Your task to perform on an android device: install app "Google Play services" Image 0: 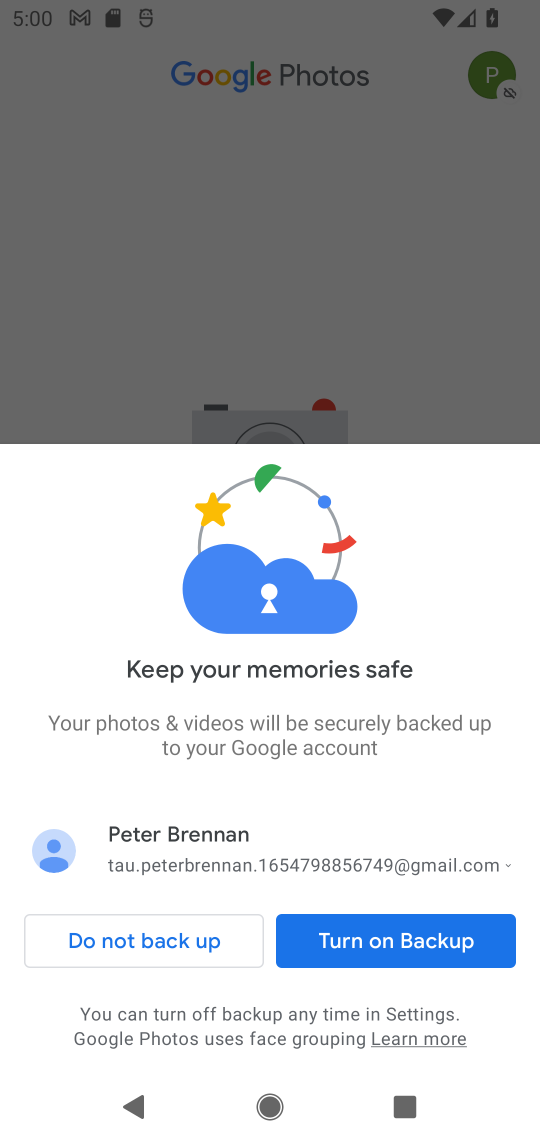
Step 0: press home button
Your task to perform on an android device: install app "Google Play services" Image 1: 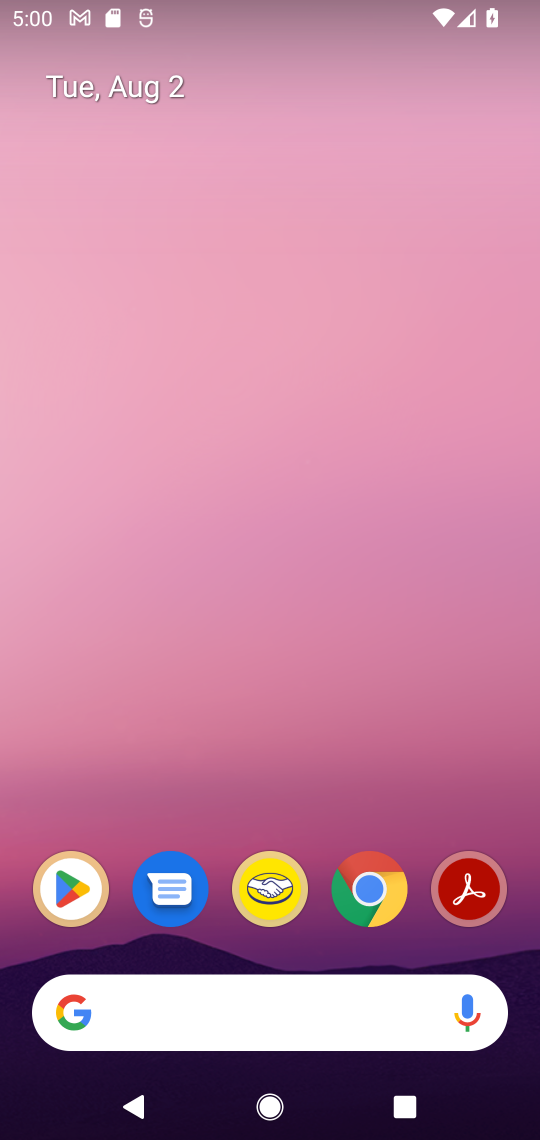
Step 1: drag from (434, 795) to (394, 64)
Your task to perform on an android device: install app "Google Play services" Image 2: 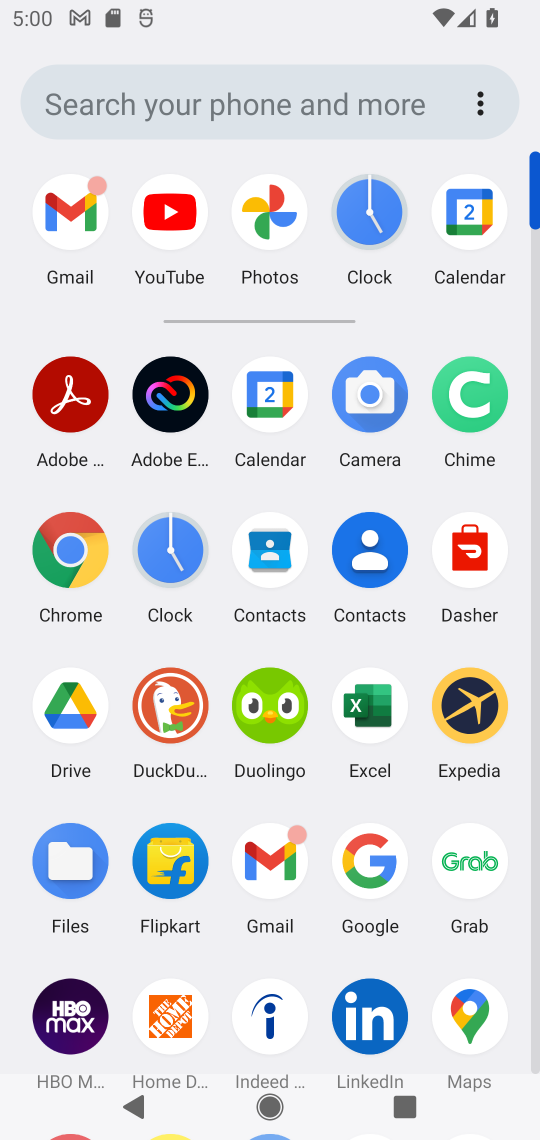
Step 2: drag from (517, 961) to (529, 373)
Your task to perform on an android device: install app "Google Play services" Image 3: 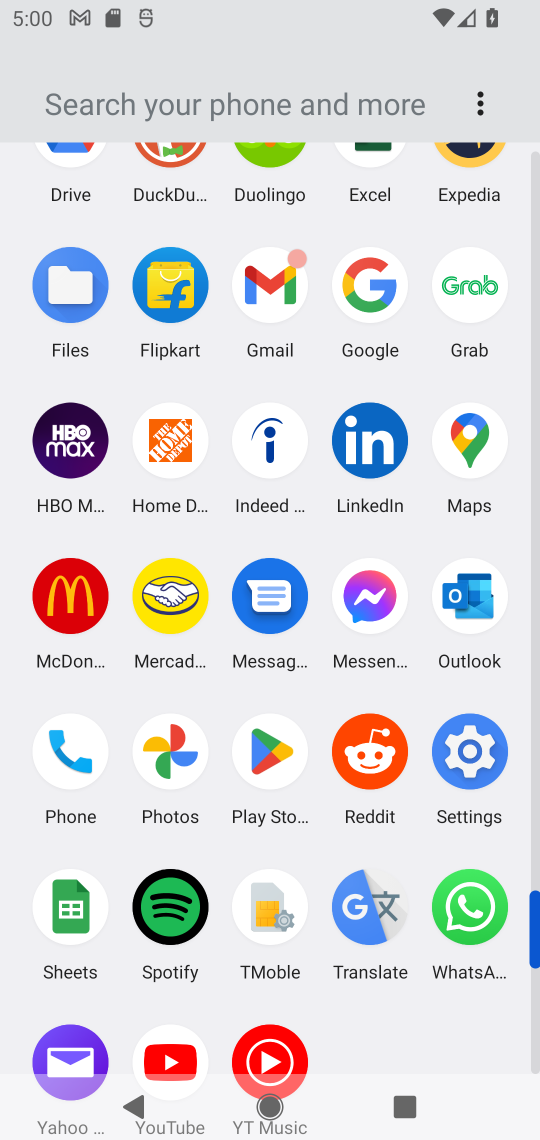
Step 3: click (275, 760)
Your task to perform on an android device: install app "Google Play services" Image 4: 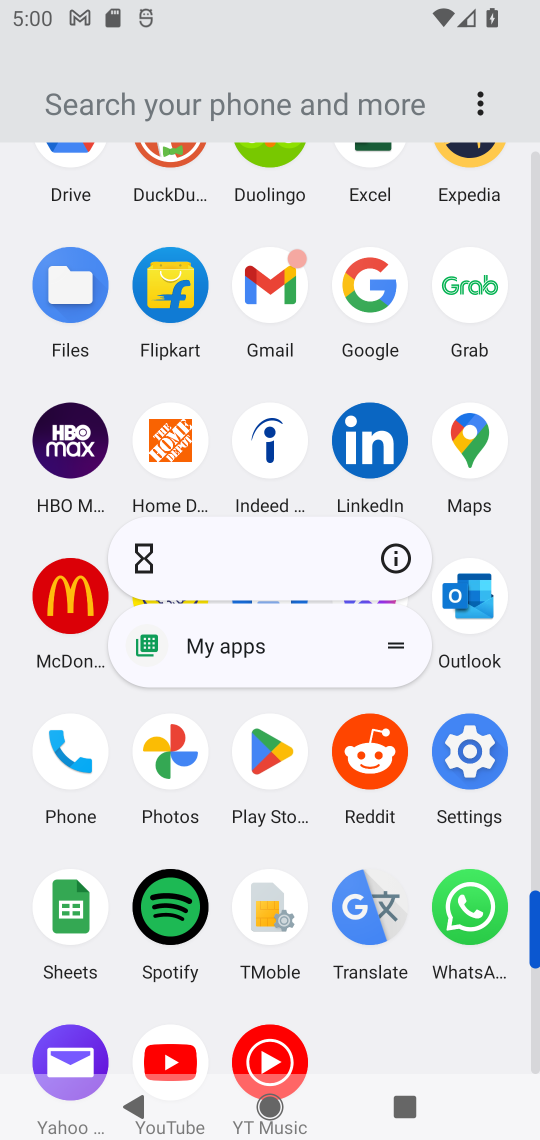
Step 4: click (263, 744)
Your task to perform on an android device: install app "Google Play services" Image 5: 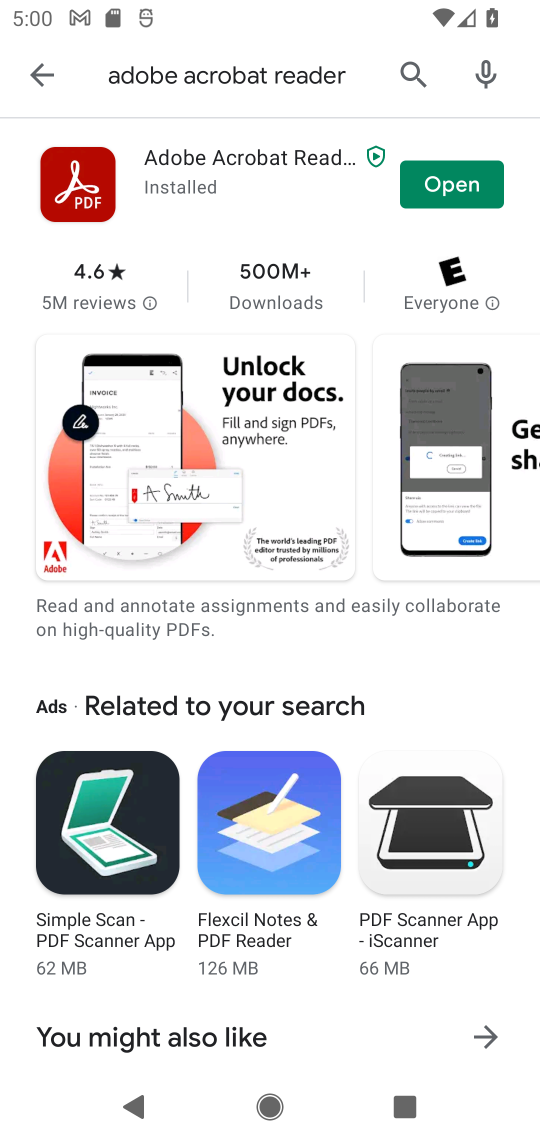
Step 5: click (420, 73)
Your task to perform on an android device: install app "Google Play services" Image 6: 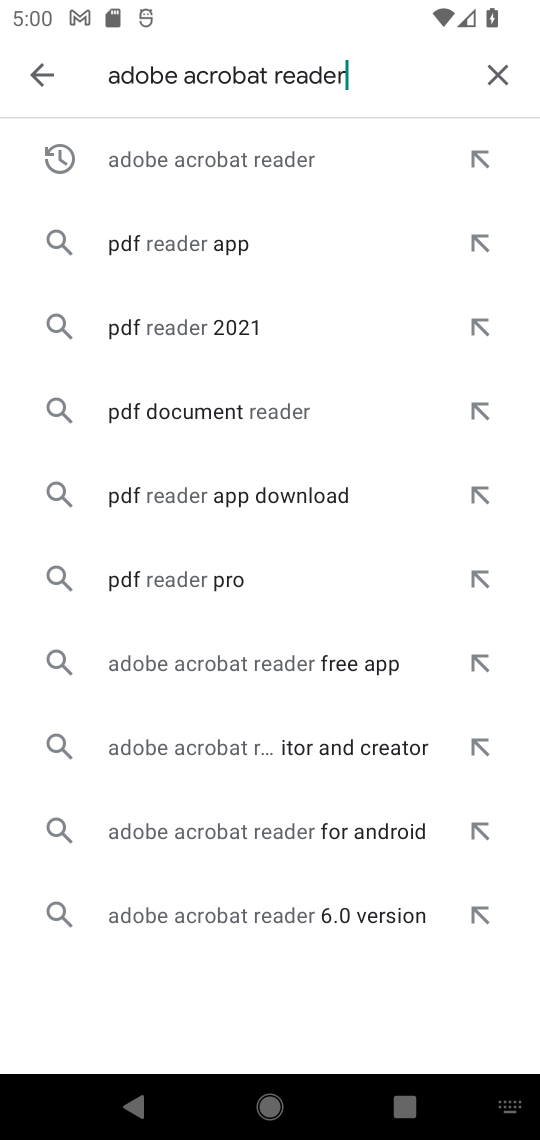
Step 6: click (495, 72)
Your task to perform on an android device: install app "Google Play services" Image 7: 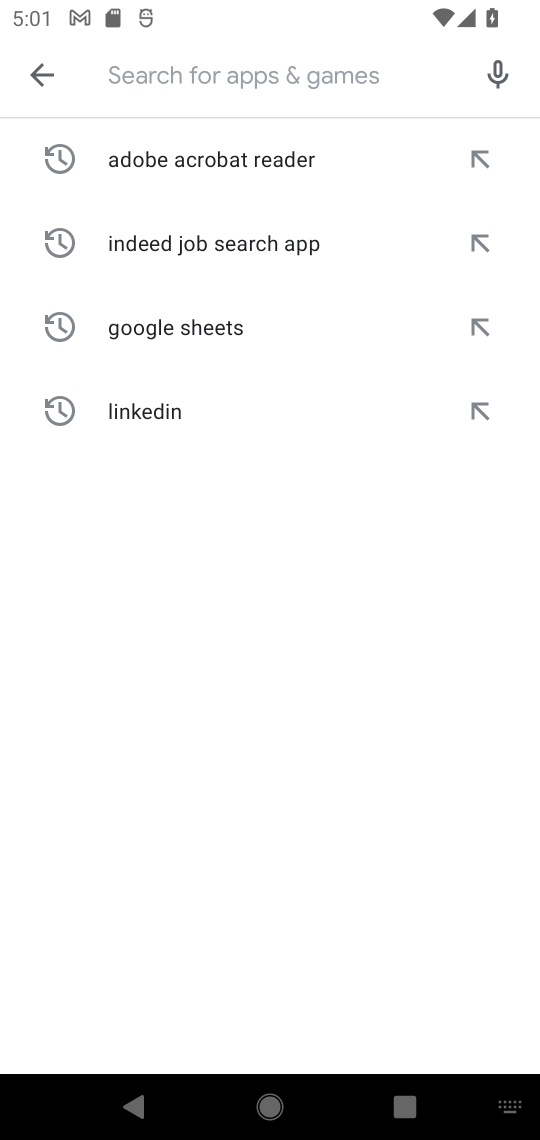
Step 7: type "Google Play services"
Your task to perform on an android device: install app "Google Play services" Image 8: 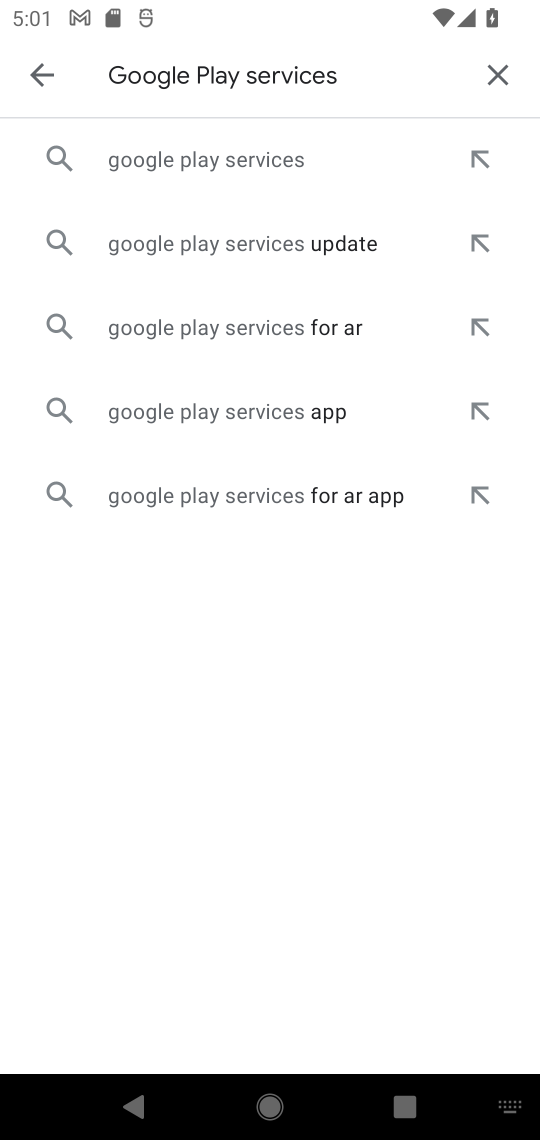
Step 8: click (273, 165)
Your task to perform on an android device: install app "Google Play services" Image 9: 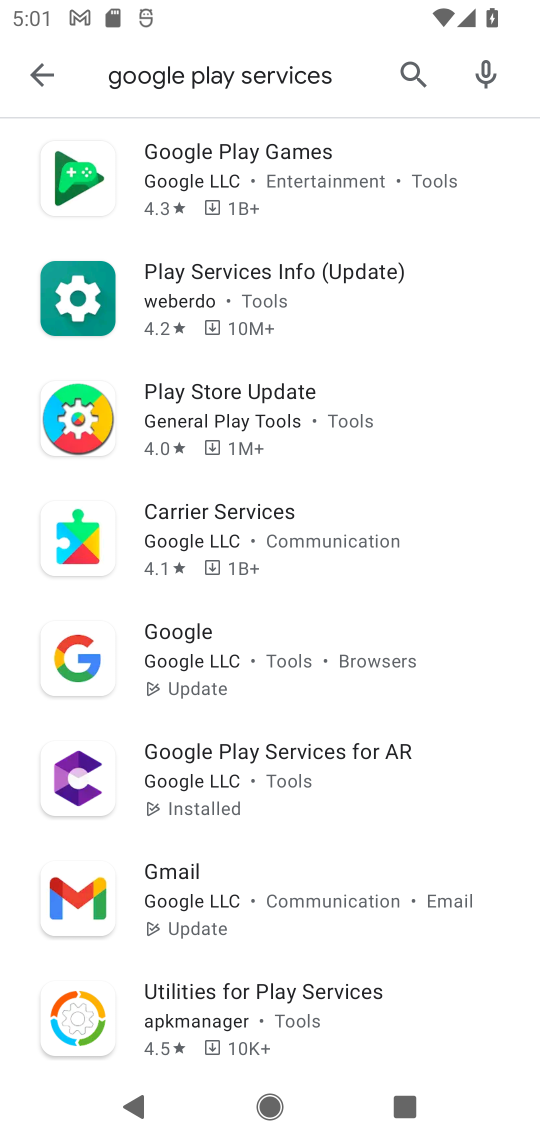
Step 9: task complete